Your task to perform on an android device: Open location settings Image 0: 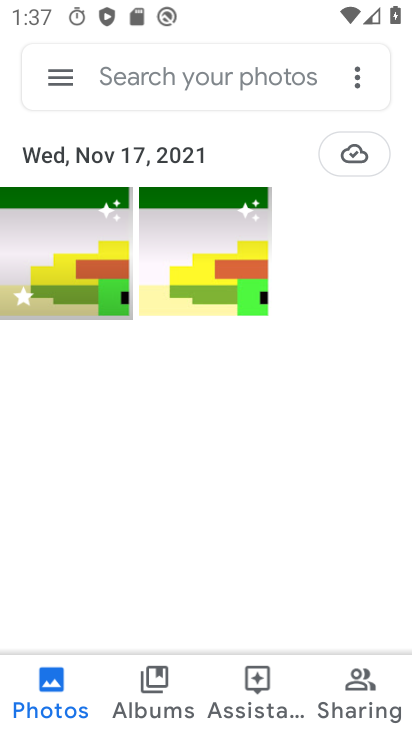
Step 0: press home button
Your task to perform on an android device: Open location settings Image 1: 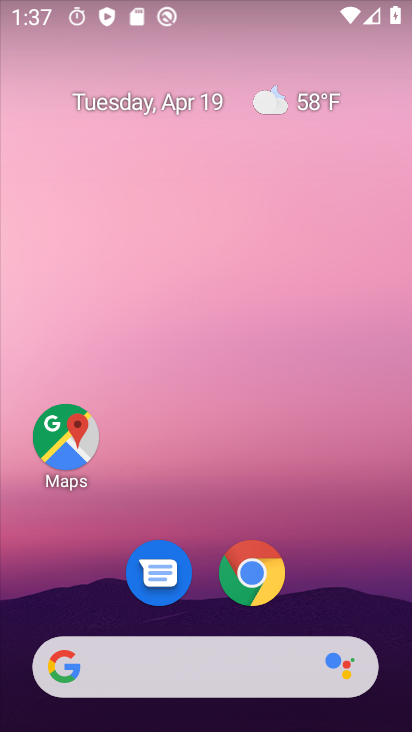
Step 1: drag from (351, 541) to (275, 43)
Your task to perform on an android device: Open location settings Image 2: 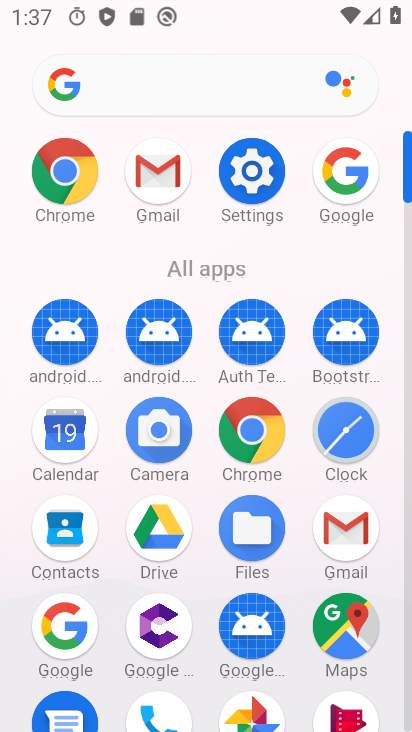
Step 2: click (269, 149)
Your task to perform on an android device: Open location settings Image 3: 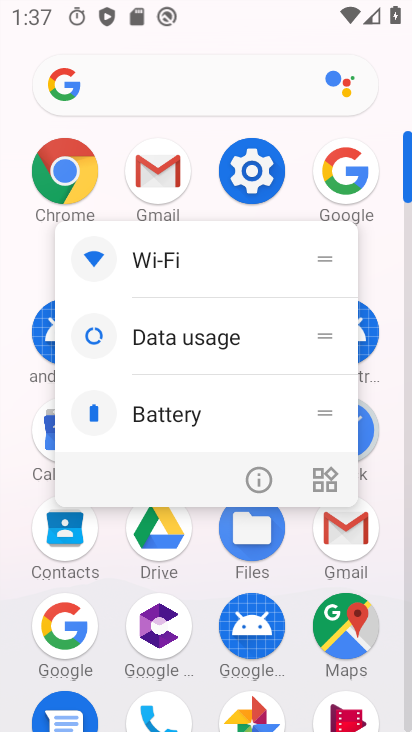
Step 3: click (264, 185)
Your task to perform on an android device: Open location settings Image 4: 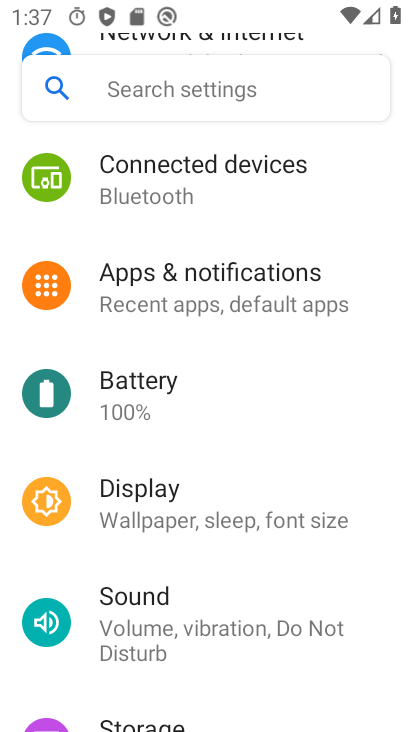
Step 4: drag from (242, 567) to (147, 130)
Your task to perform on an android device: Open location settings Image 5: 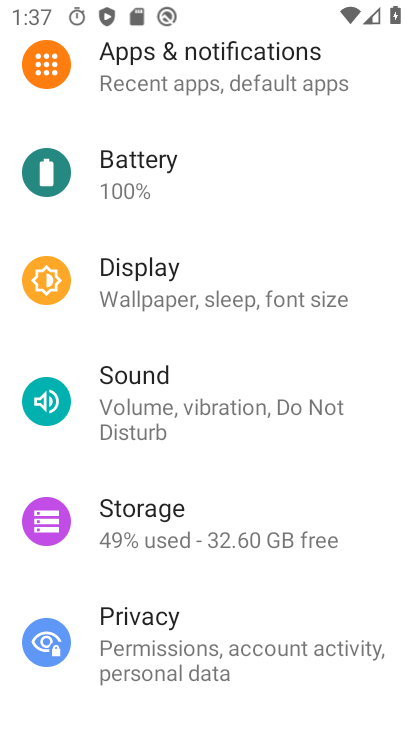
Step 5: drag from (203, 610) to (152, 144)
Your task to perform on an android device: Open location settings Image 6: 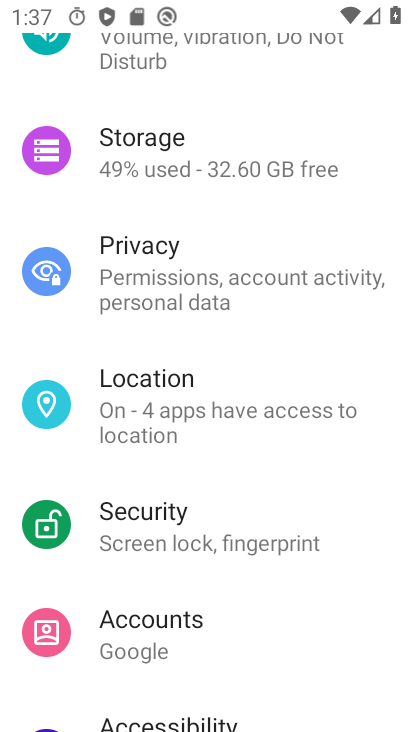
Step 6: click (196, 390)
Your task to perform on an android device: Open location settings Image 7: 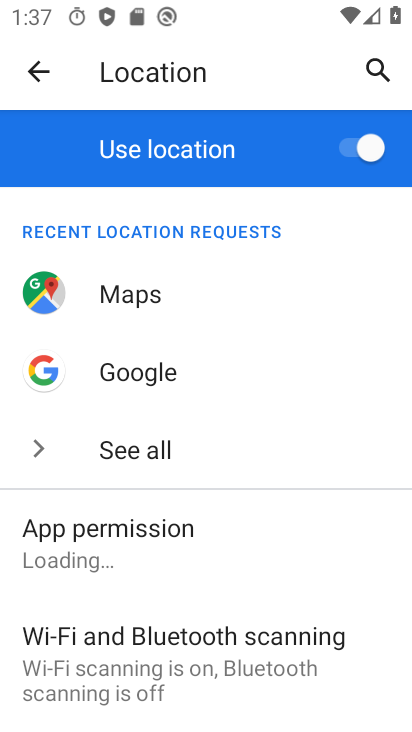
Step 7: task complete